Your task to perform on an android device: open app "Upside-Cash back on gas & food" (install if not already installed) and go to login screen Image 0: 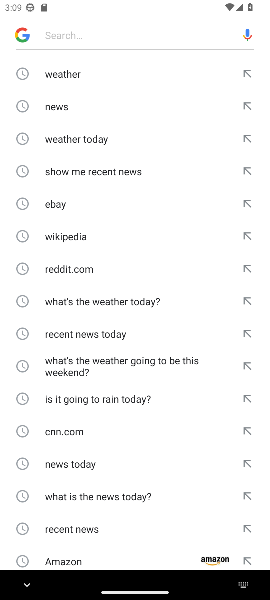
Step 0: press home button
Your task to perform on an android device: open app "Upside-Cash back on gas & food" (install if not already installed) and go to login screen Image 1: 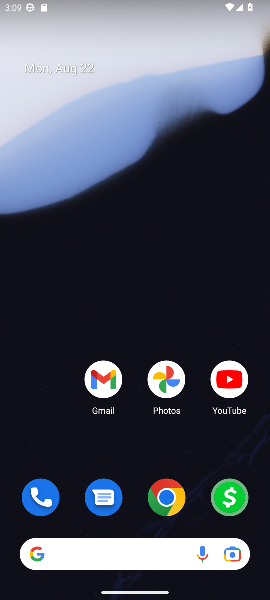
Step 1: drag from (131, 503) to (127, 22)
Your task to perform on an android device: open app "Upside-Cash back on gas & food" (install if not already installed) and go to login screen Image 2: 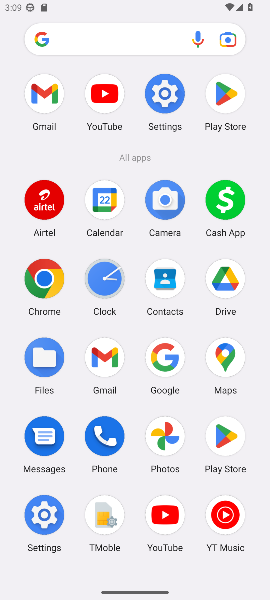
Step 2: click (223, 438)
Your task to perform on an android device: open app "Upside-Cash back on gas & food" (install if not already installed) and go to login screen Image 3: 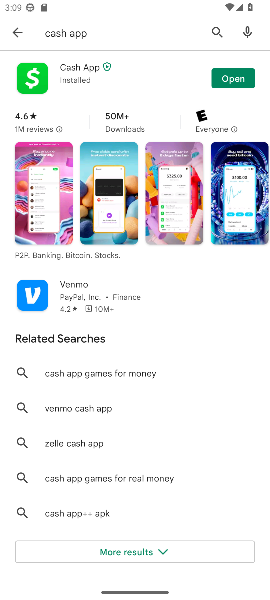
Step 3: click (10, 37)
Your task to perform on an android device: open app "Upside-Cash back on gas & food" (install if not already installed) and go to login screen Image 4: 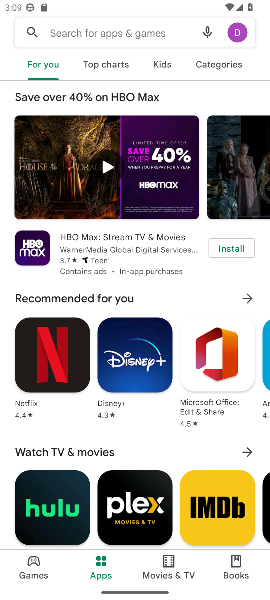
Step 4: click (75, 31)
Your task to perform on an android device: open app "Upside-Cash back on gas & food" (install if not already installed) and go to login screen Image 5: 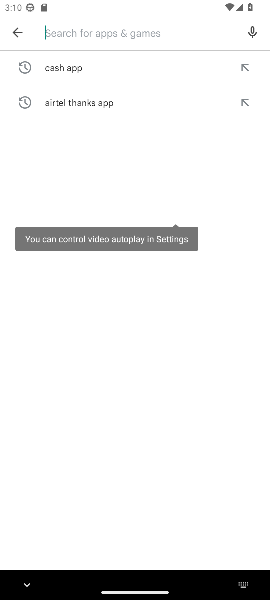
Step 5: type "Upside-Cash back on gas & food"
Your task to perform on an android device: open app "Upside-Cash back on gas & food" (install if not already installed) and go to login screen Image 6: 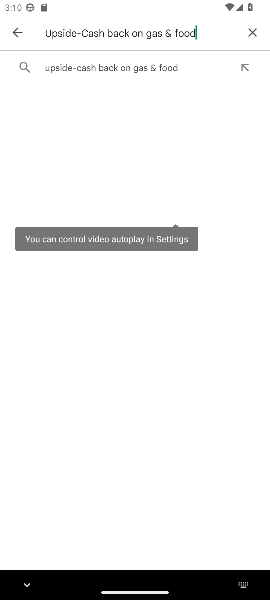
Step 6: click (81, 61)
Your task to perform on an android device: open app "Upside-Cash back on gas & food" (install if not already installed) and go to login screen Image 7: 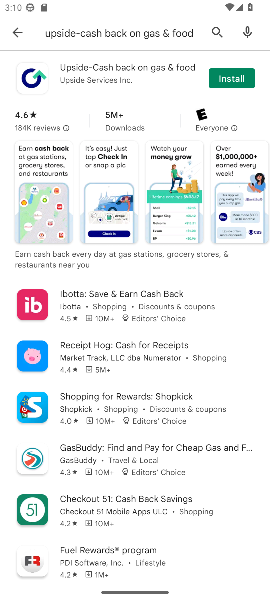
Step 7: click (227, 75)
Your task to perform on an android device: open app "Upside-Cash back on gas & food" (install if not already installed) and go to login screen Image 8: 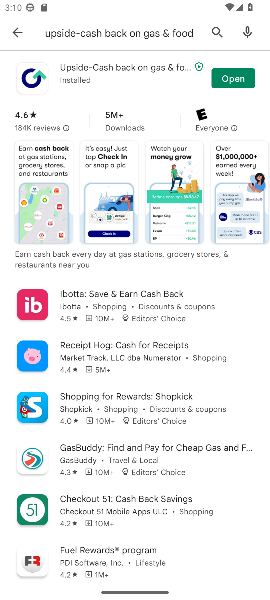
Step 8: click (227, 75)
Your task to perform on an android device: open app "Upside-Cash back on gas & food" (install if not already installed) and go to login screen Image 9: 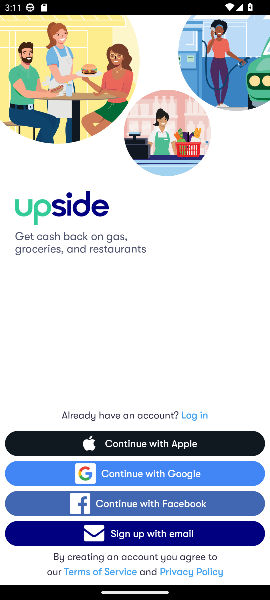
Step 9: click (202, 413)
Your task to perform on an android device: open app "Upside-Cash back on gas & food" (install if not already installed) and go to login screen Image 10: 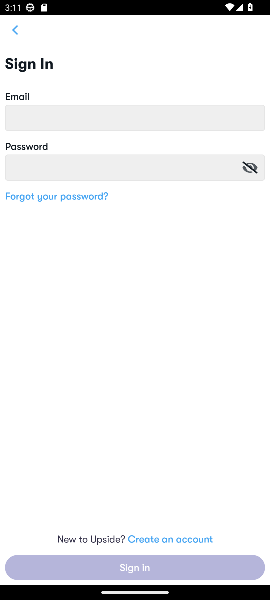
Step 10: task complete